Your task to perform on an android device: turn pop-ups off in chrome Image 0: 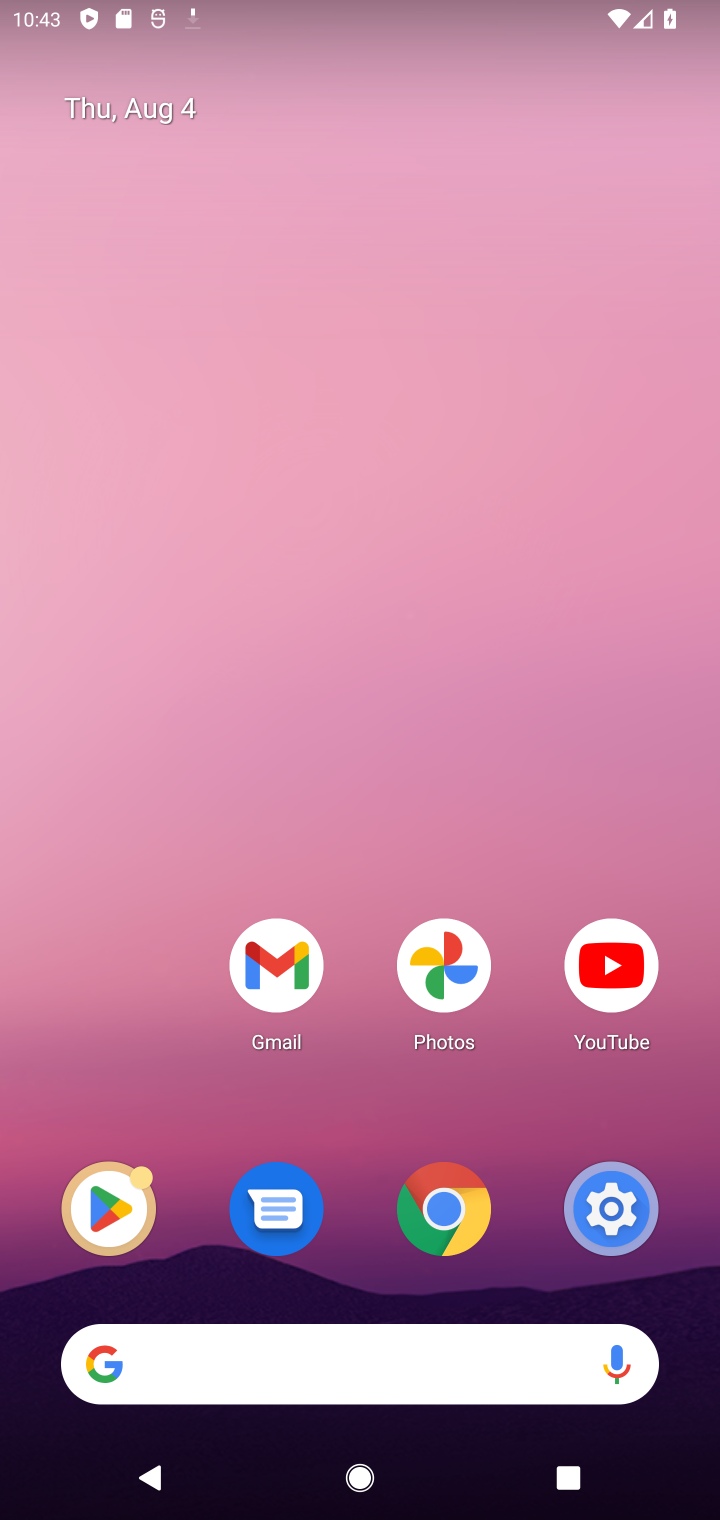
Step 0: click (454, 1215)
Your task to perform on an android device: turn pop-ups off in chrome Image 1: 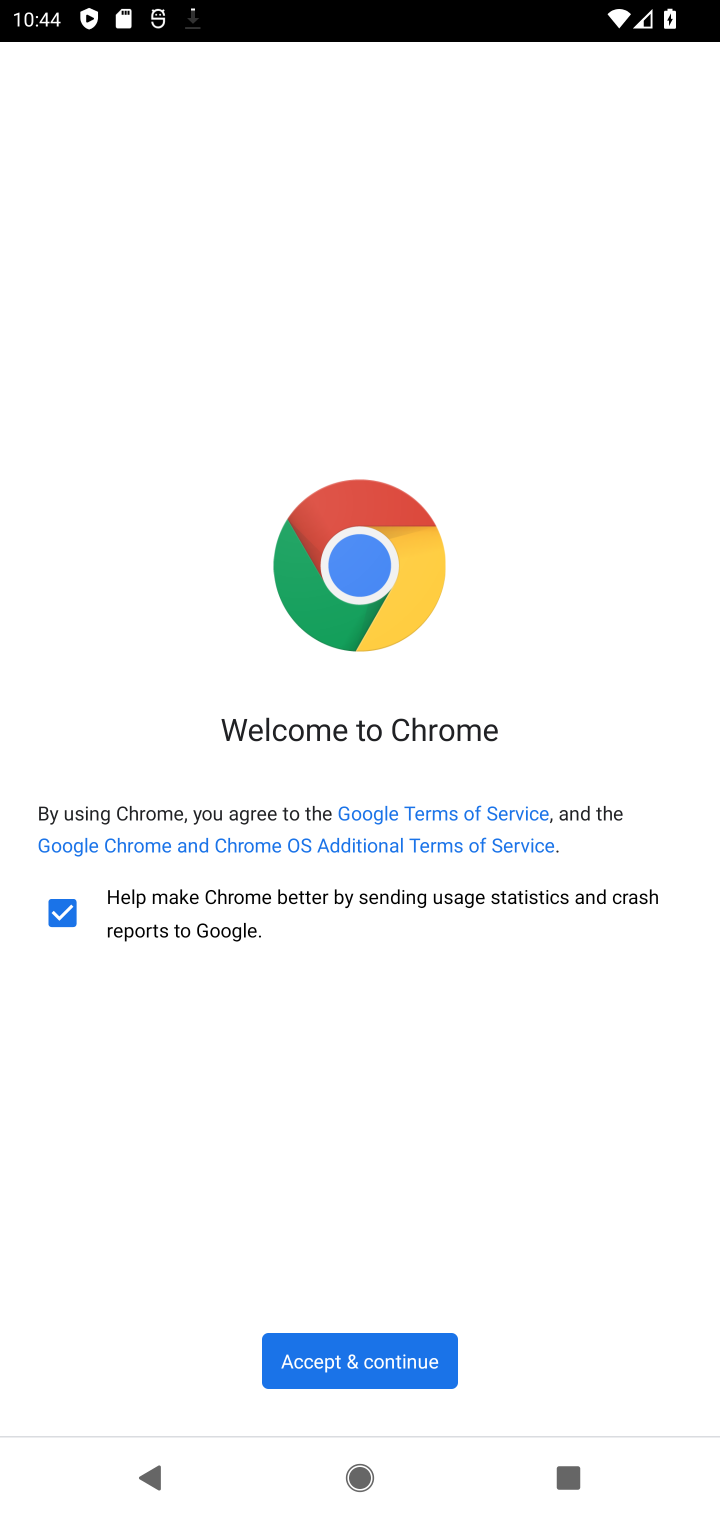
Step 1: click (437, 1362)
Your task to perform on an android device: turn pop-ups off in chrome Image 2: 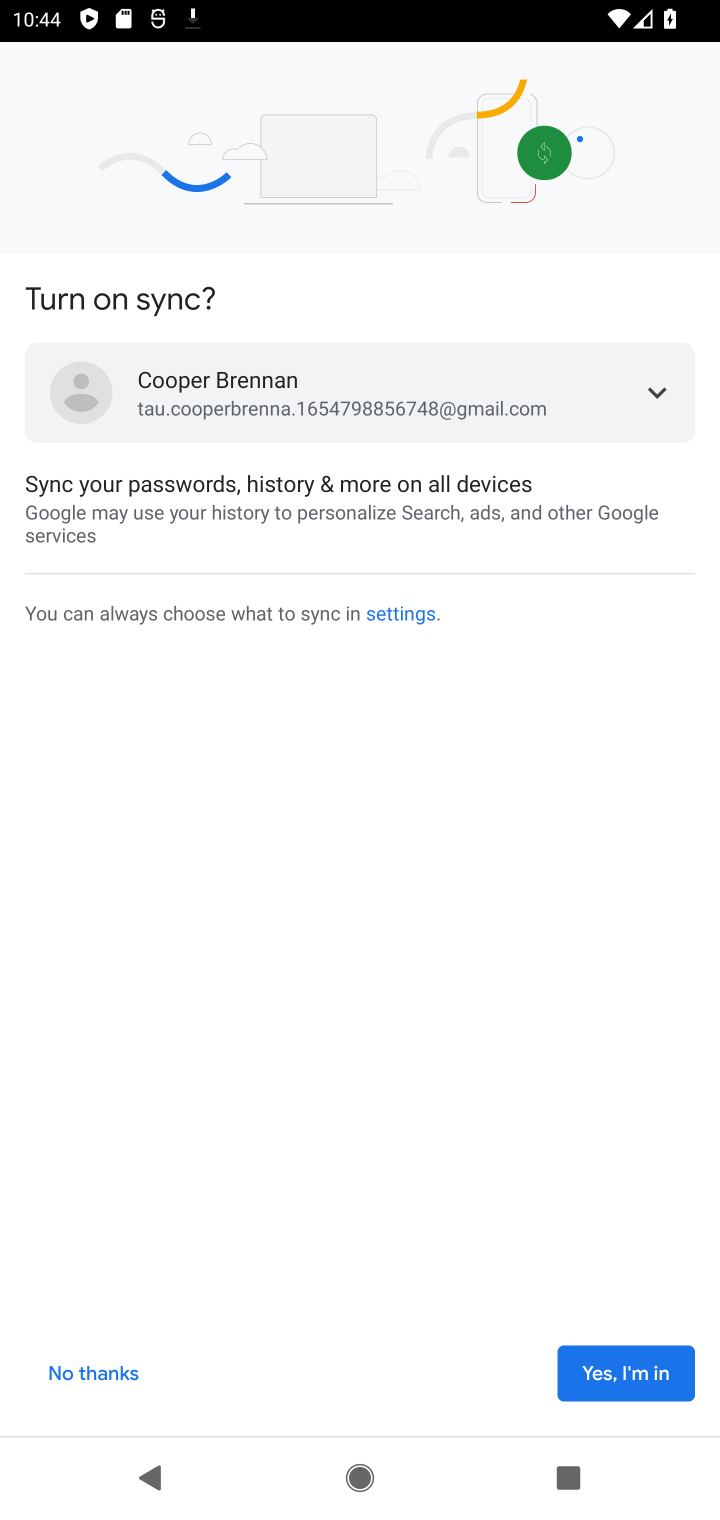
Step 2: click (608, 1383)
Your task to perform on an android device: turn pop-ups off in chrome Image 3: 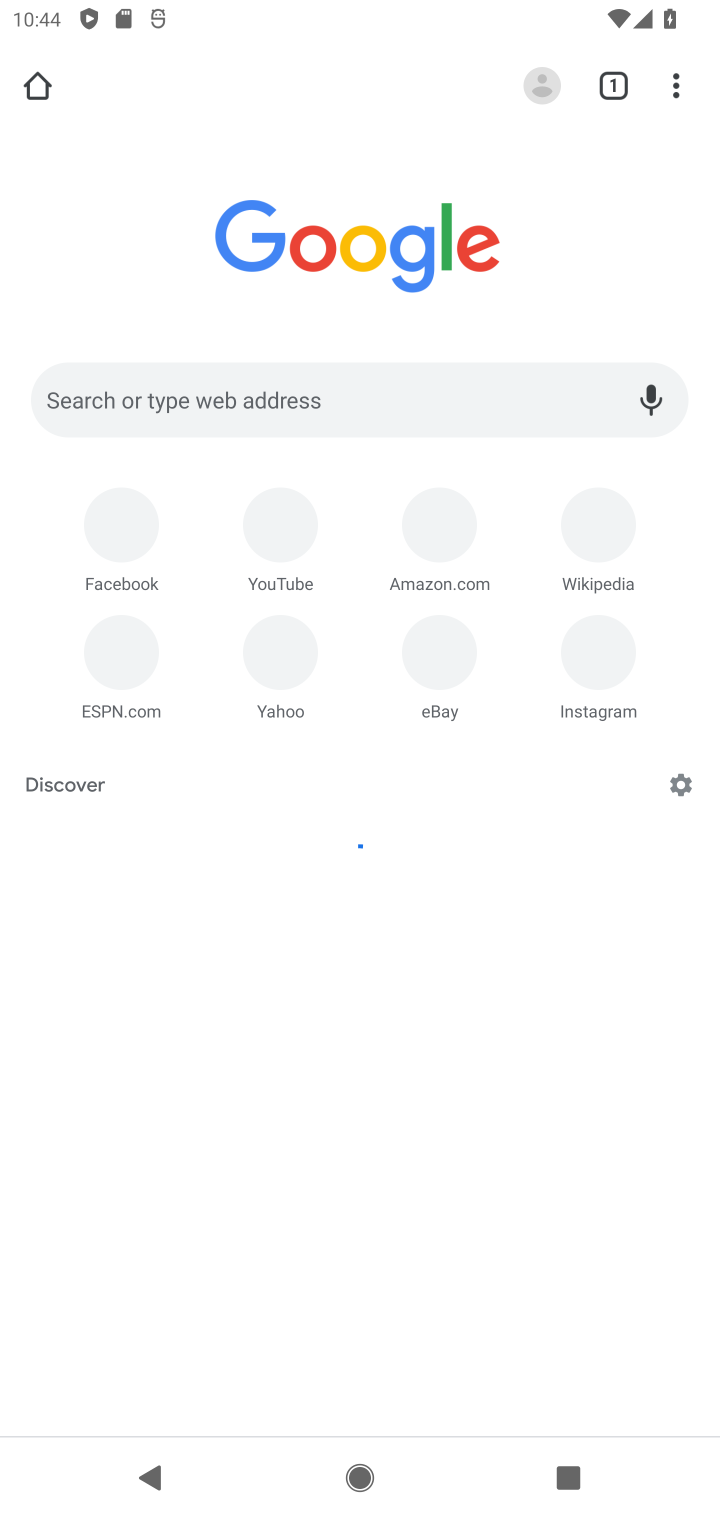
Step 3: click (672, 78)
Your task to perform on an android device: turn pop-ups off in chrome Image 4: 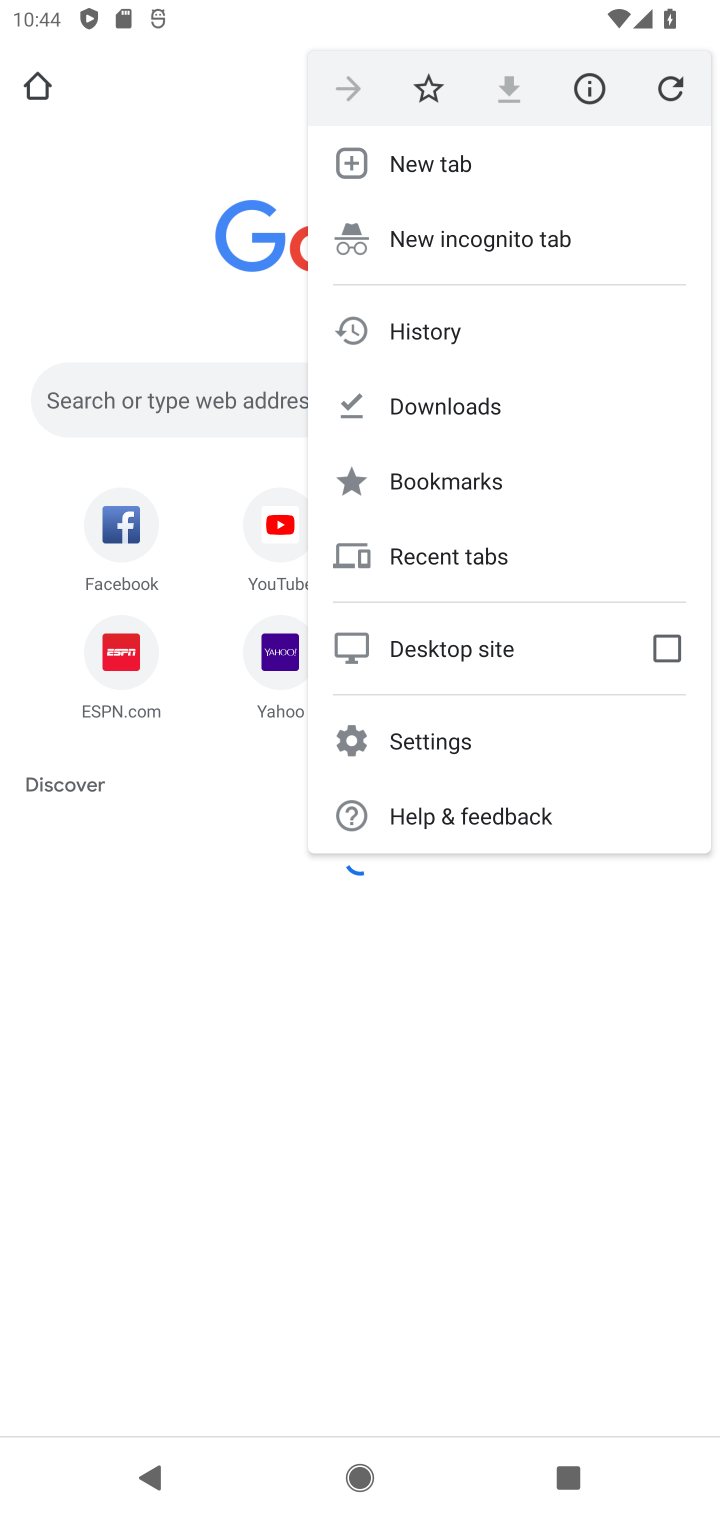
Step 4: click (449, 732)
Your task to perform on an android device: turn pop-ups off in chrome Image 5: 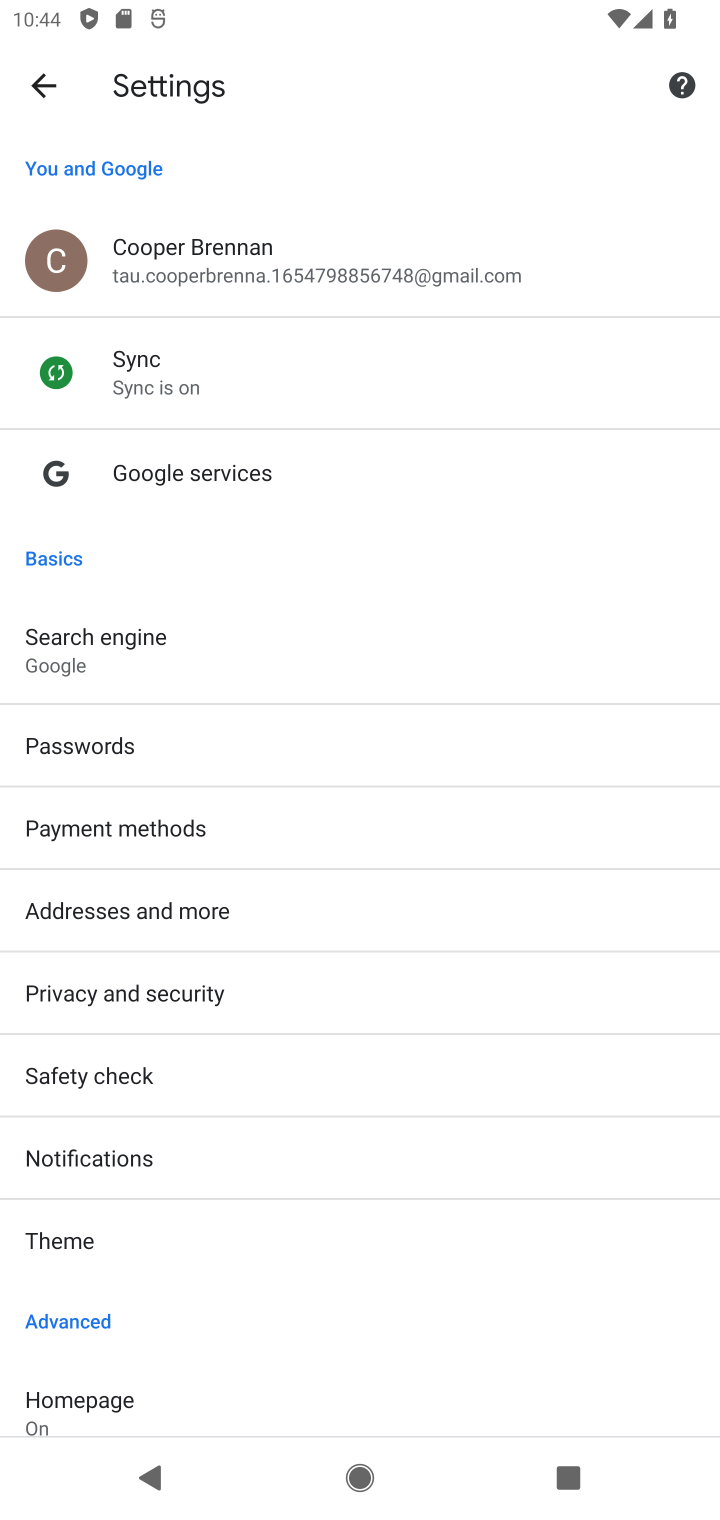
Step 5: drag from (449, 1079) to (436, 561)
Your task to perform on an android device: turn pop-ups off in chrome Image 6: 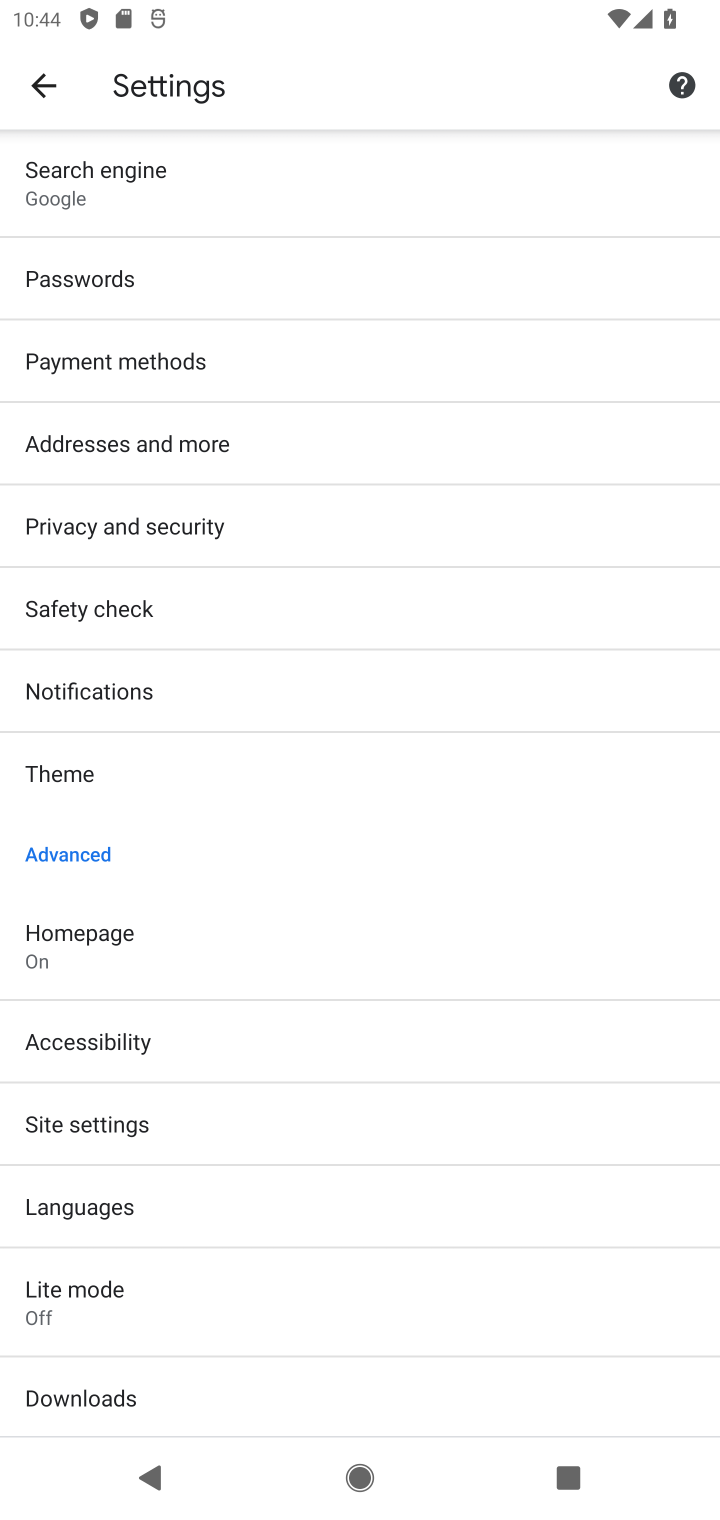
Step 6: click (129, 1118)
Your task to perform on an android device: turn pop-ups off in chrome Image 7: 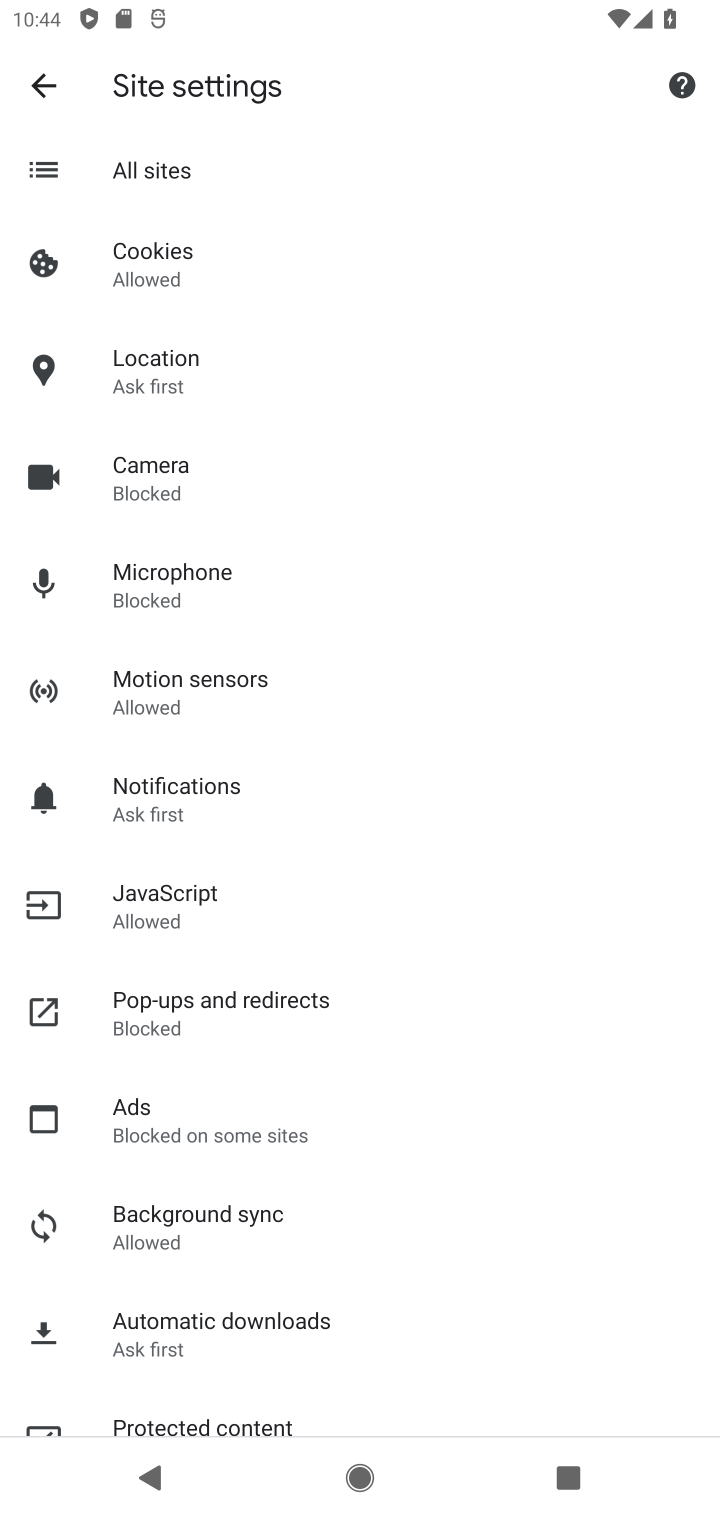
Step 7: click (301, 1006)
Your task to perform on an android device: turn pop-ups off in chrome Image 8: 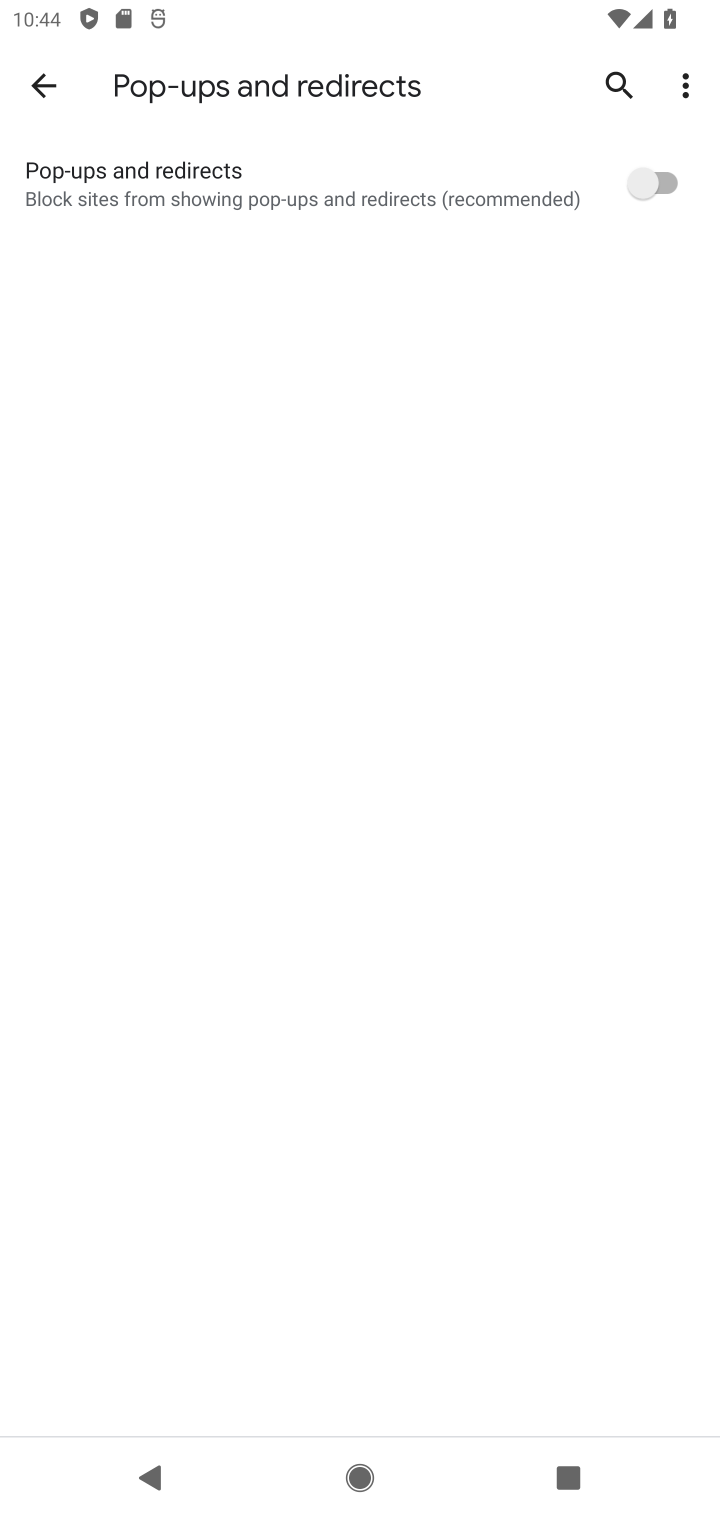
Step 8: task complete